Your task to perform on an android device: empty trash in google photos Image 0: 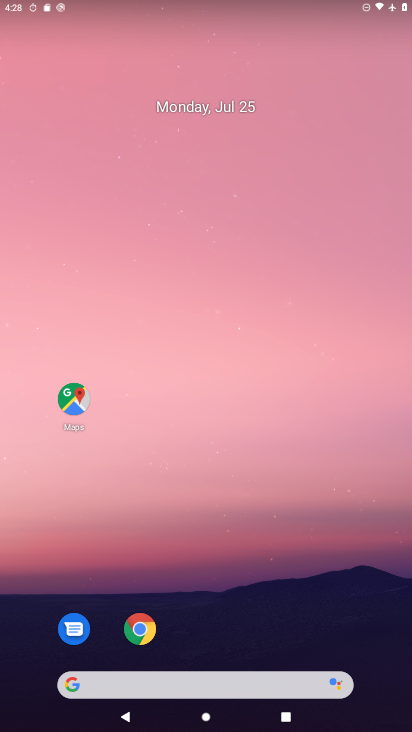
Step 0: drag from (190, 707) to (143, 15)
Your task to perform on an android device: empty trash in google photos Image 1: 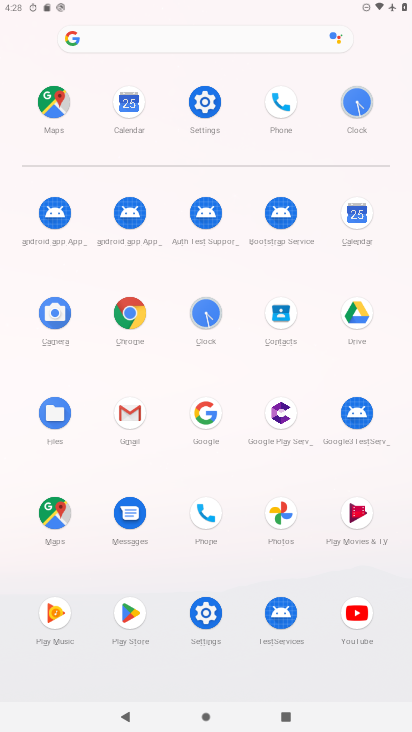
Step 1: click (287, 510)
Your task to perform on an android device: empty trash in google photos Image 2: 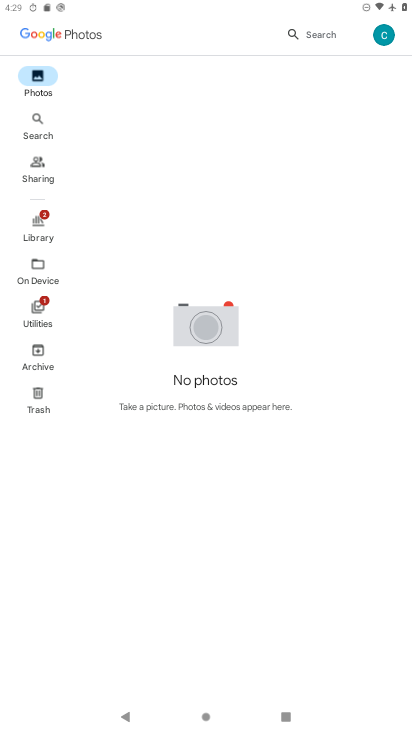
Step 2: click (42, 398)
Your task to perform on an android device: empty trash in google photos Image 3: 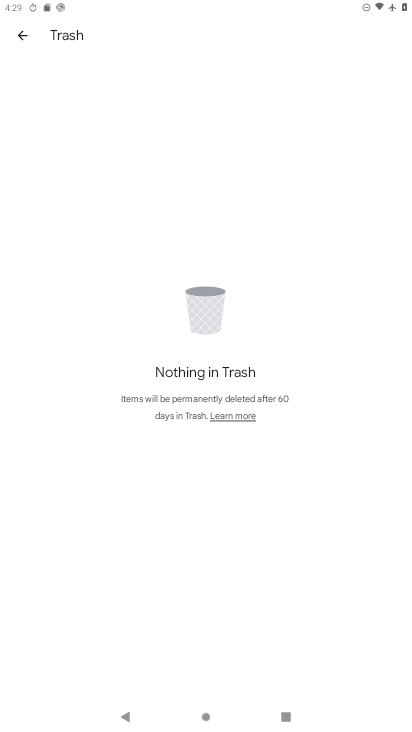
Step 3: task complete